Your task to perform on an android device: open app "Airtel Thanks" (install if not already installed) Image 0: 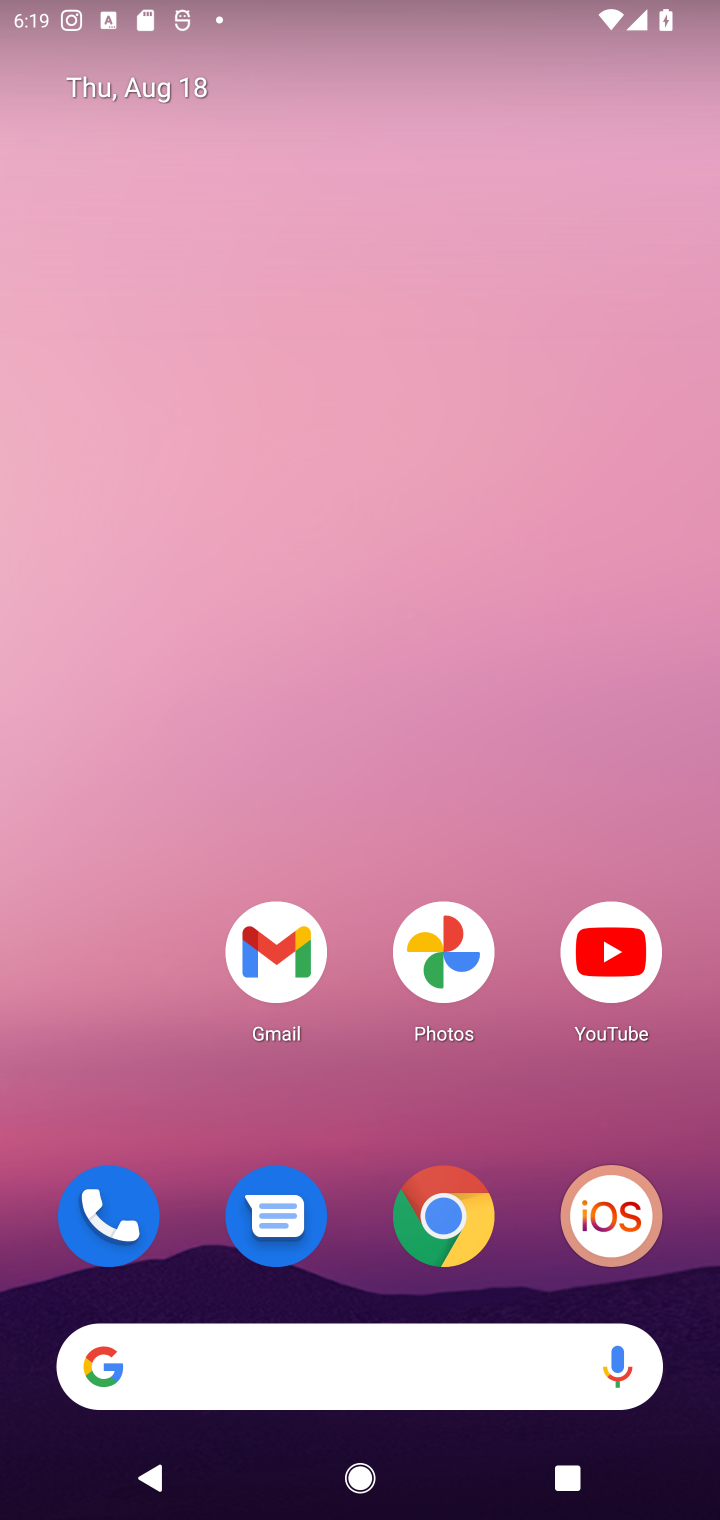
Step 0: drag from (372, 1085) to (503, 181)
Your task to perform on an android device: open app "Airtel Thanks" (install if not already installed) Image 1: 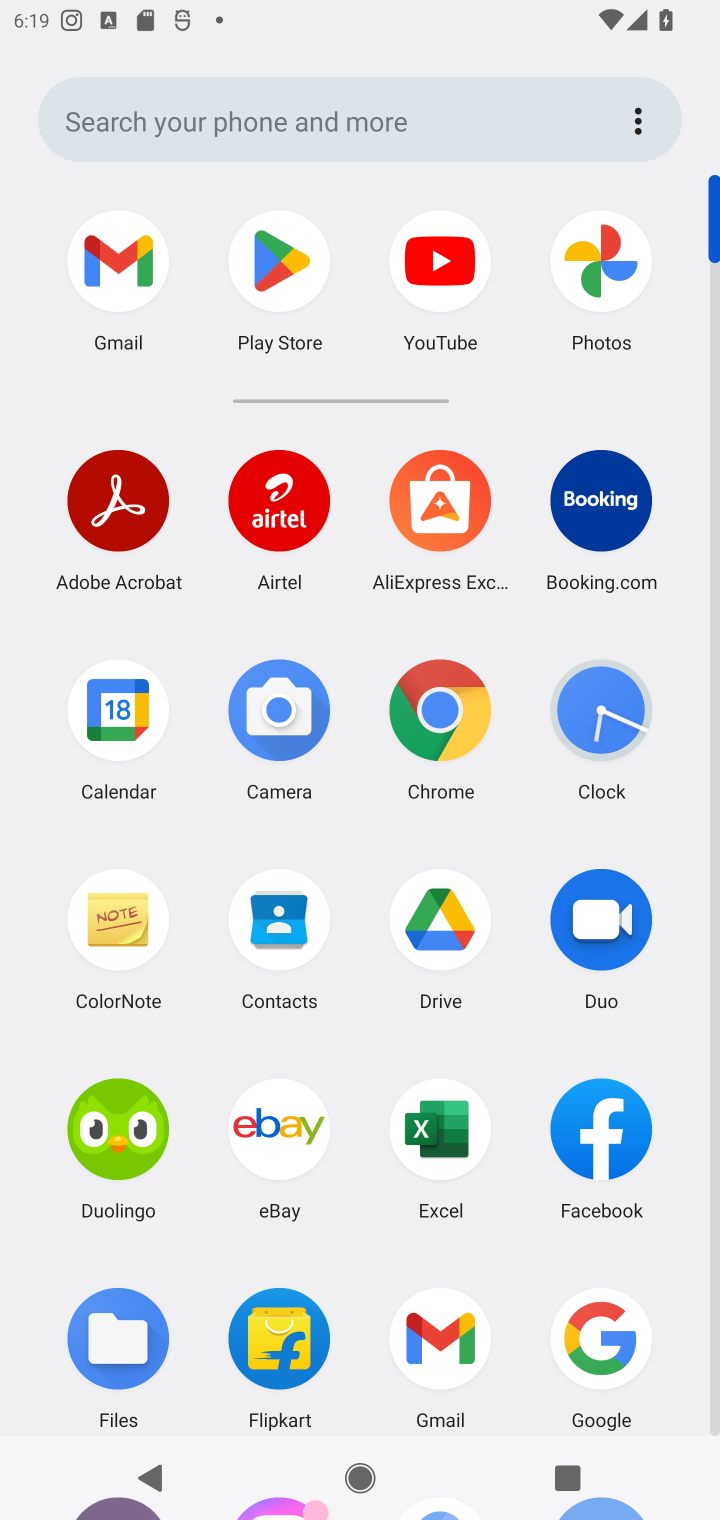
Step 1: click (295, 270)
Your task to perform on an android device: open app "Airtel Thanks" (install if not already installed) Image 2: 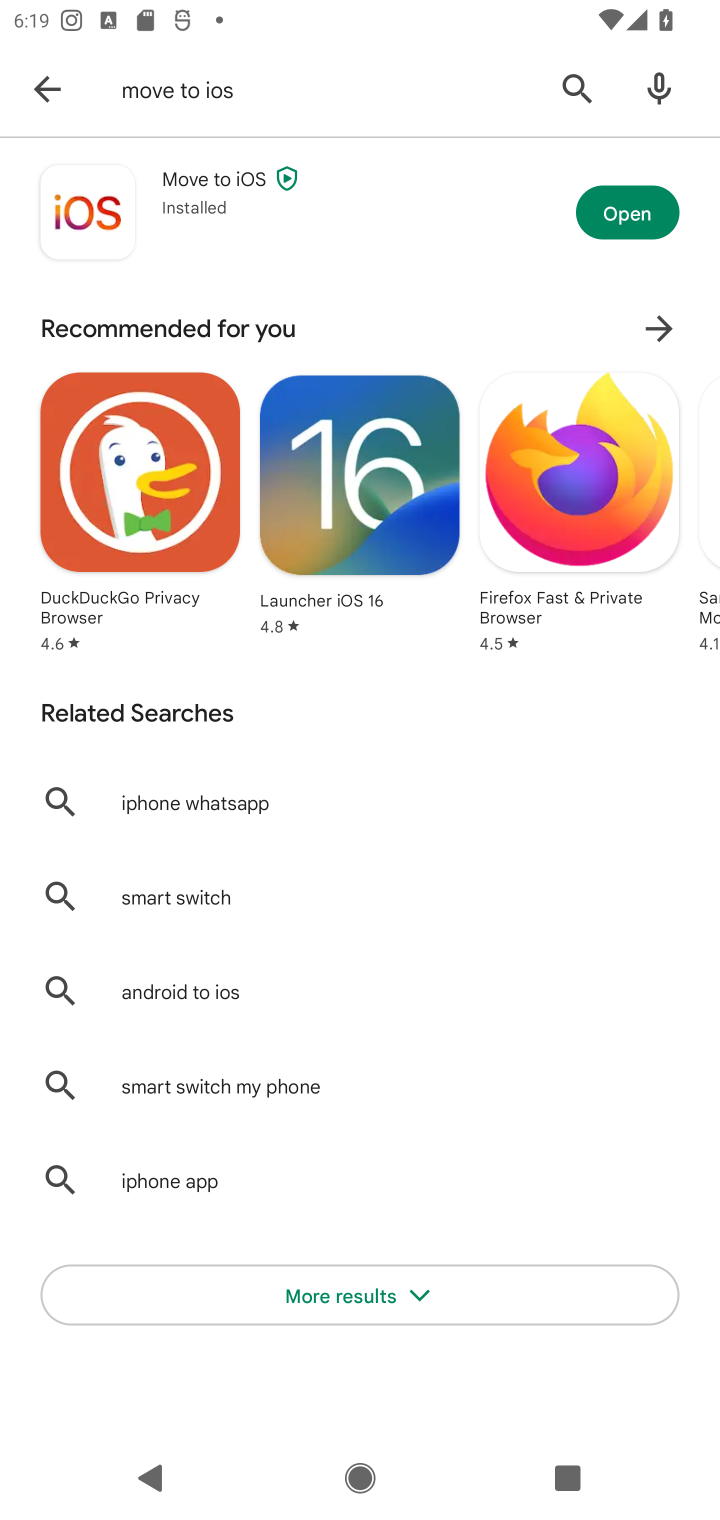
Step 2: click (569, 94)
Your task to perform on an android device: open app "Airtel Thanks" (install if not already installed) Image 3: 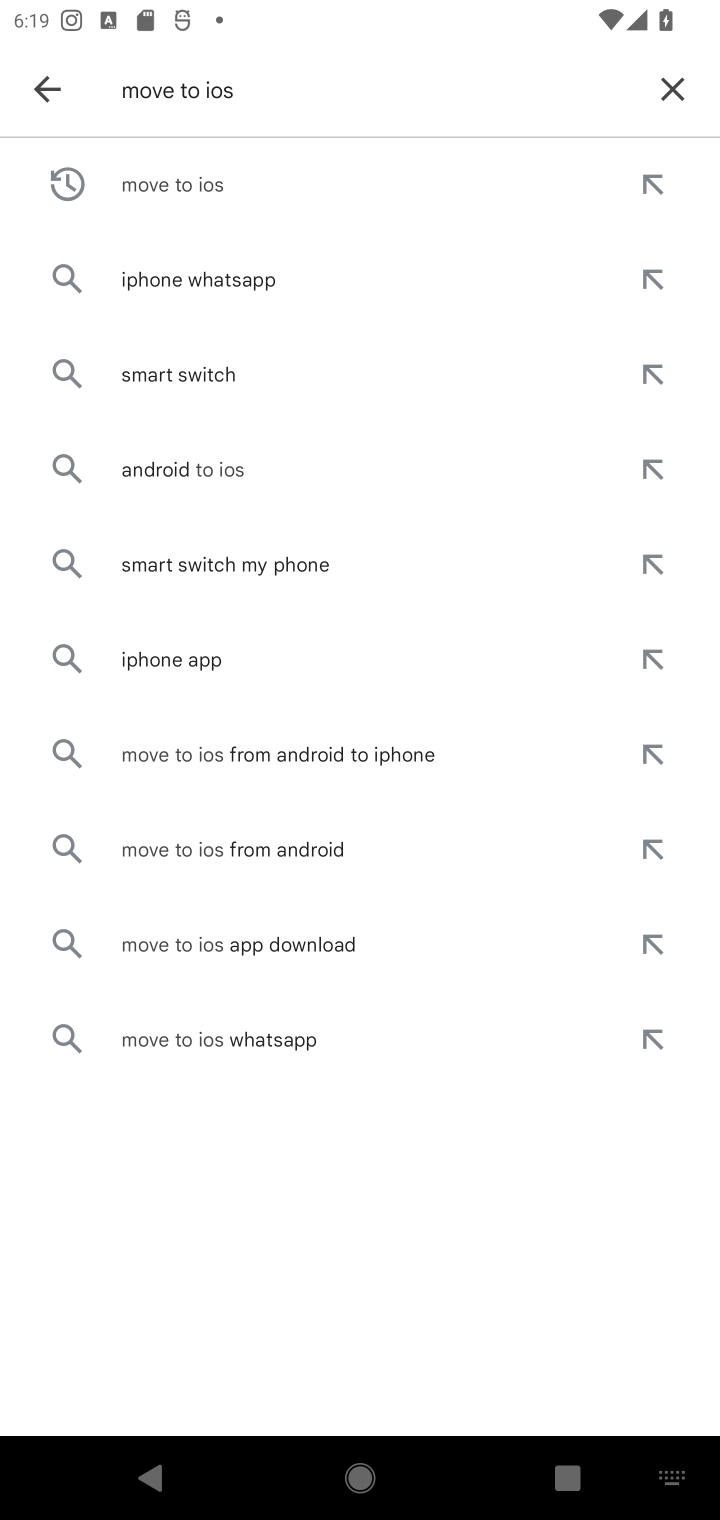
Step 3: click (673, 94)
Your task to perform on an android device: open app "Airtel Thanks" (install if not already installed) Image 4: 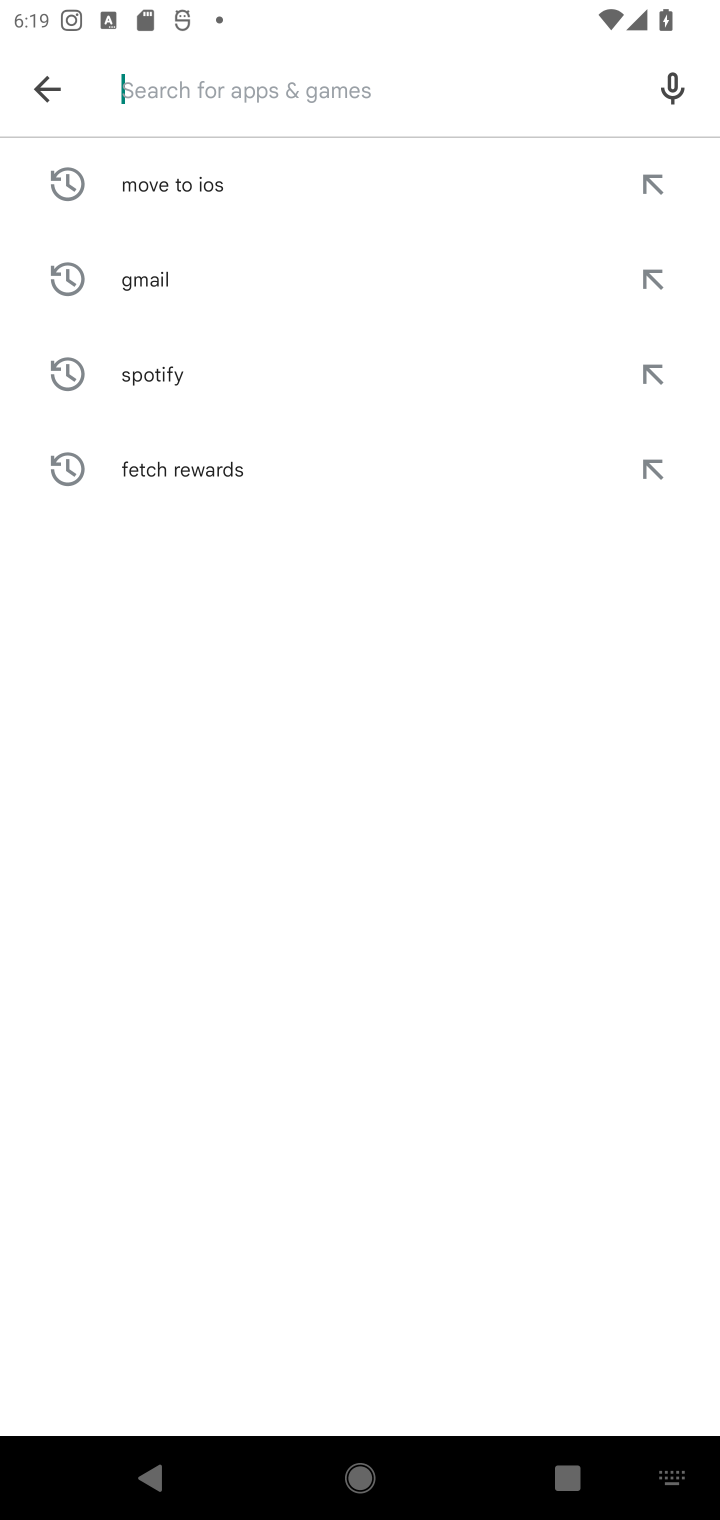
Step 4: type "Airtel Thanks"
Your task to perform on an android device: open app "Airtel Thanks" (install if not already installed) Image 5: 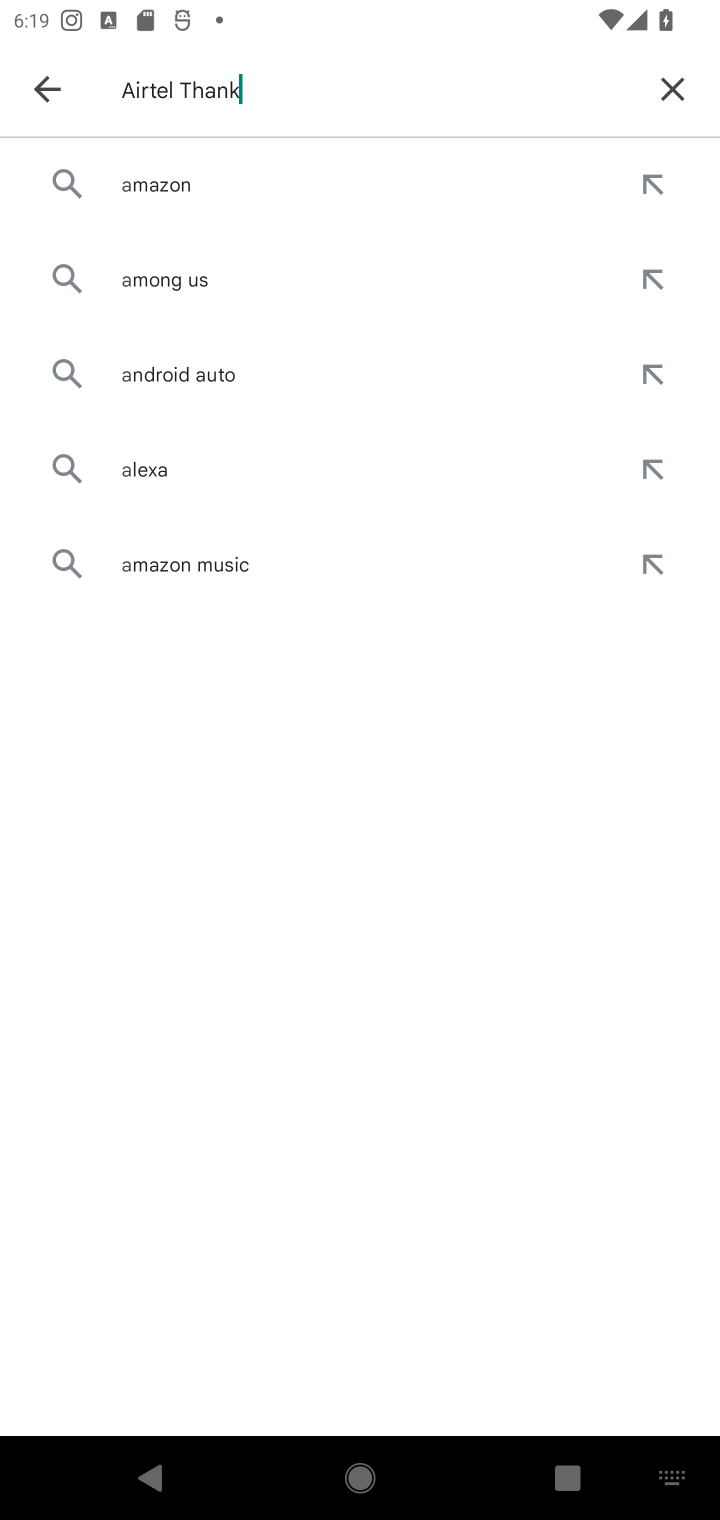
Step 5: type ""
Your task to perform on an android device: open app "Airtel Thanks" (install if not already installed) Image 6: 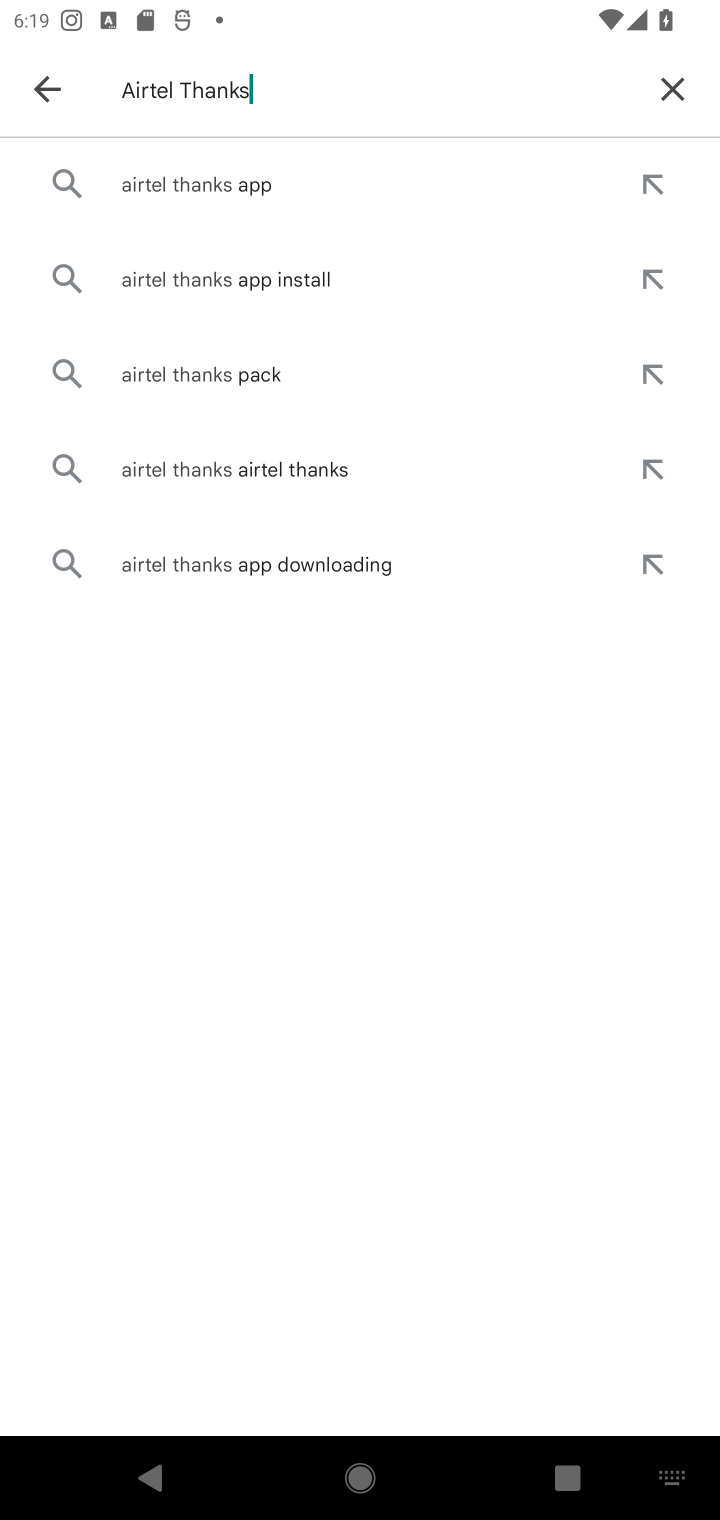
Step 6: click (221, 187)
Your task to perform on an android device: open app "Airtel Thanks" (install if not already installed) Image 7: 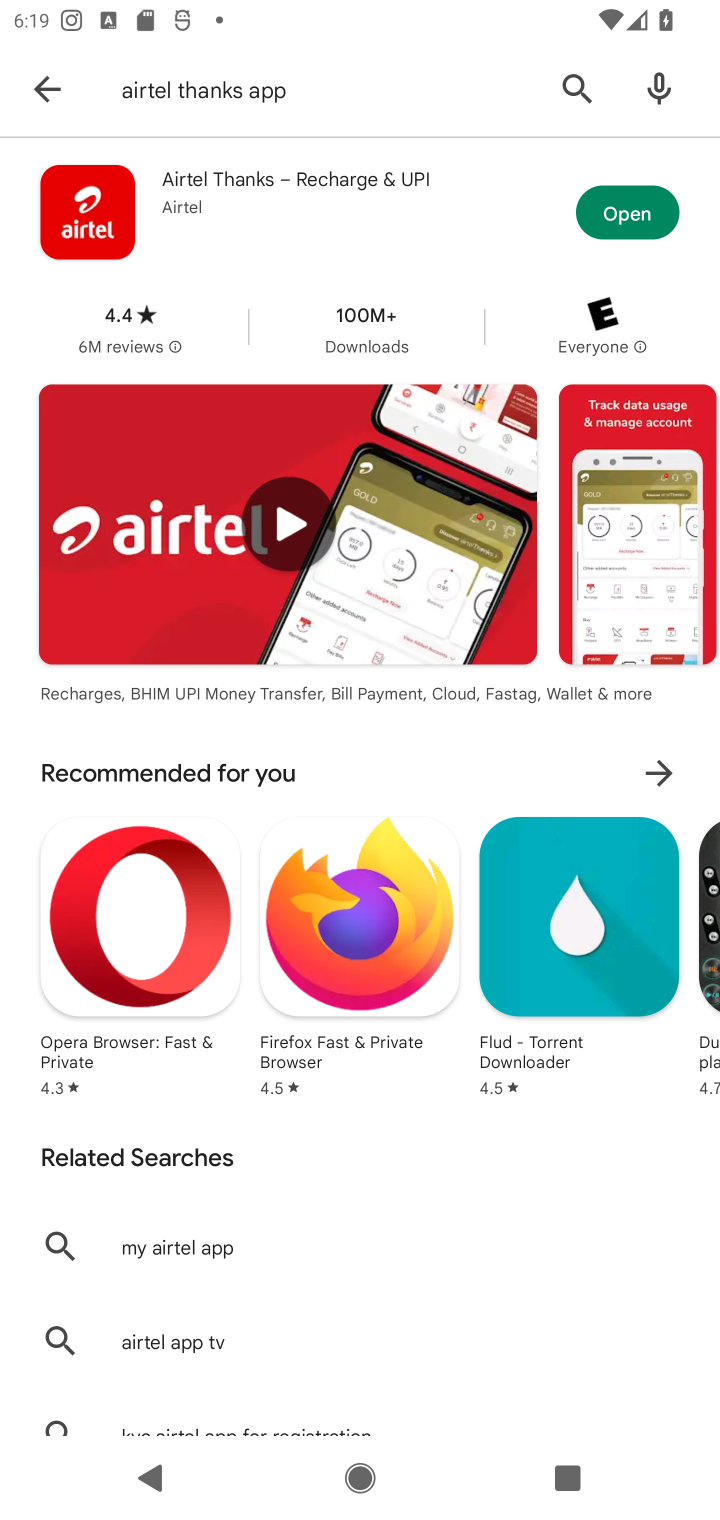
Step 7: click (603, 198)
Your task to perform on an android device: open app "Airtel Thanks" (install if not already installed) Image 8: 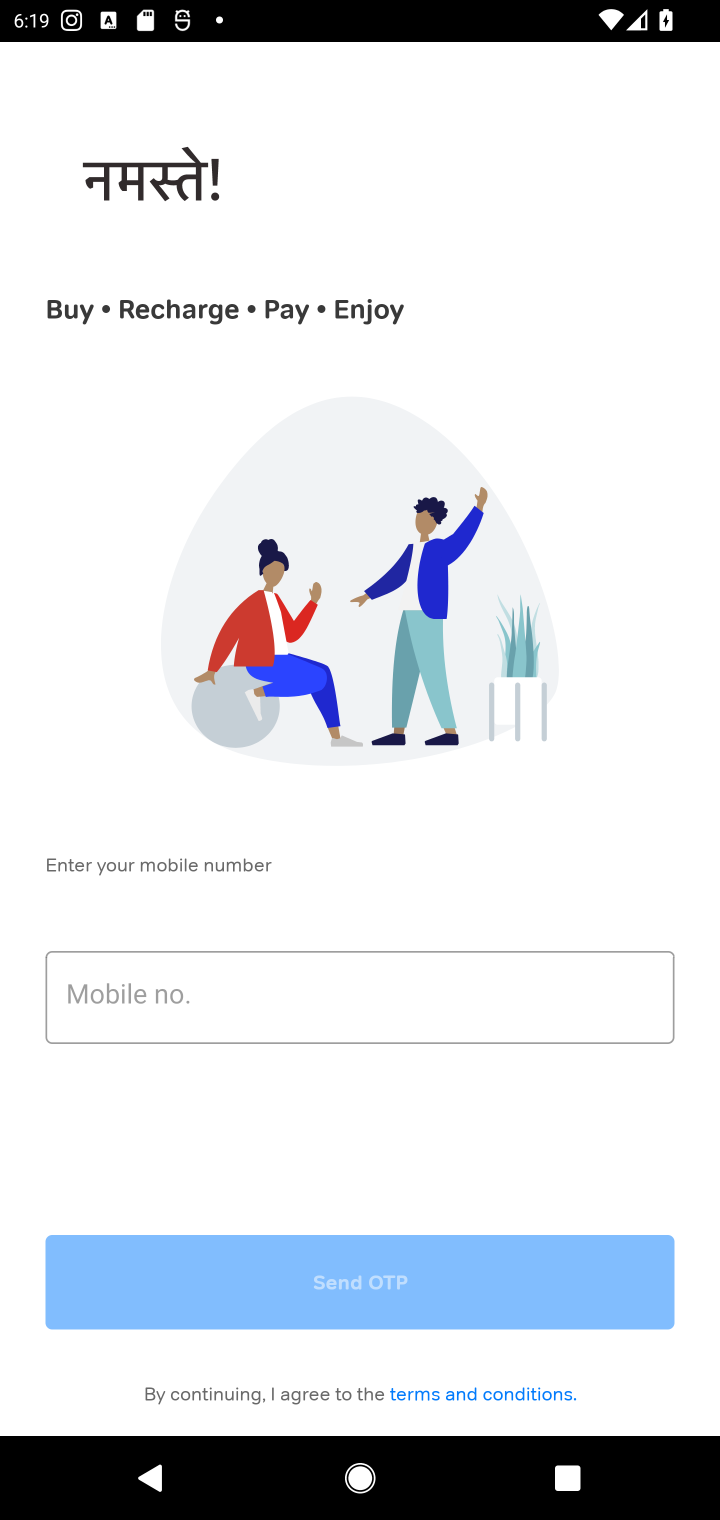
Step 8: task complete